Your task to perform on an android device: Open the Play Movies app and select the watchlist tab. Image 0: 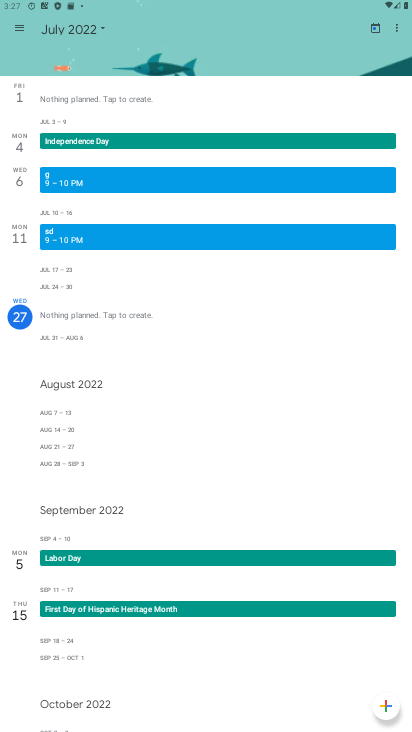
Step 0: press home button
Your task to perform on an android device: Open the Play Movies app and select the watchlist tab. Image 1: 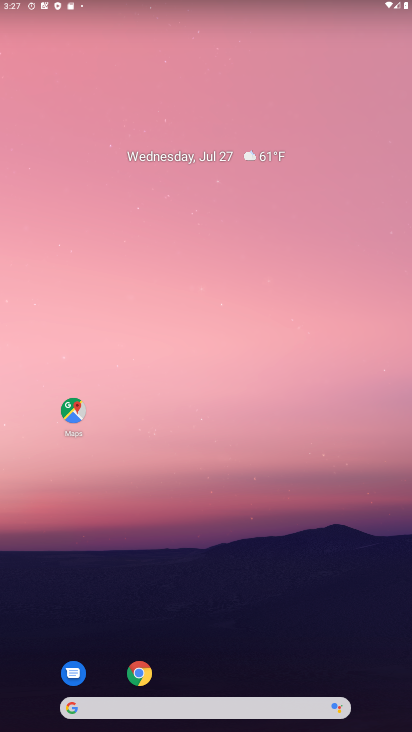
Step 1: drag from (37, 657) to (157, 149)
Your task to perform on an android device: Open the Play Movies app and select the watchlist tab. Image 2: 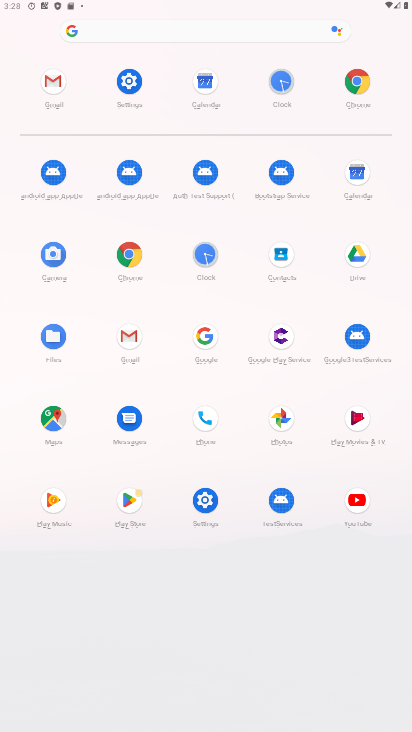
Step 2: click (361, 420)
Your task to perform on an android device: Open the Play Movies app and select the watchlist tab. Image 3: 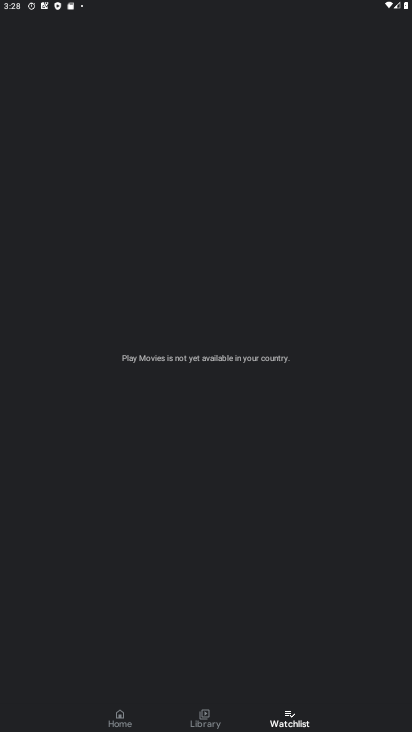
Step 3: task complete